Your task to perform on an android device: Go to ESPN.com Image 0: 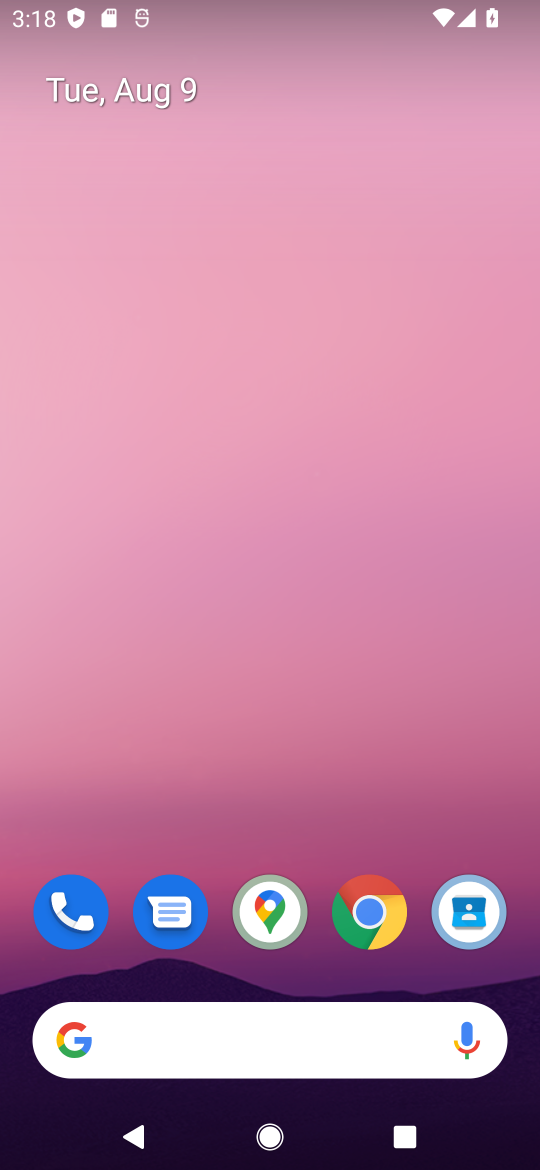
Step 0: click (374, 903)
Your task to perform on an android device: Go to ESPN.com Image 1: 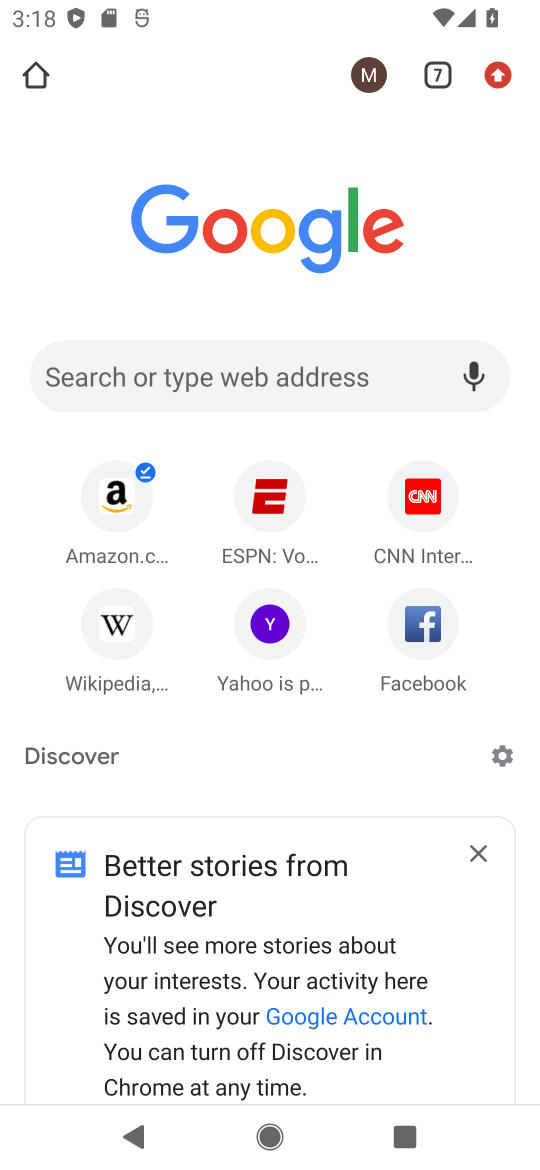
Step 1: click (270, 501)
Your task to perform on an android device: Go to ESPN.com Image 2: 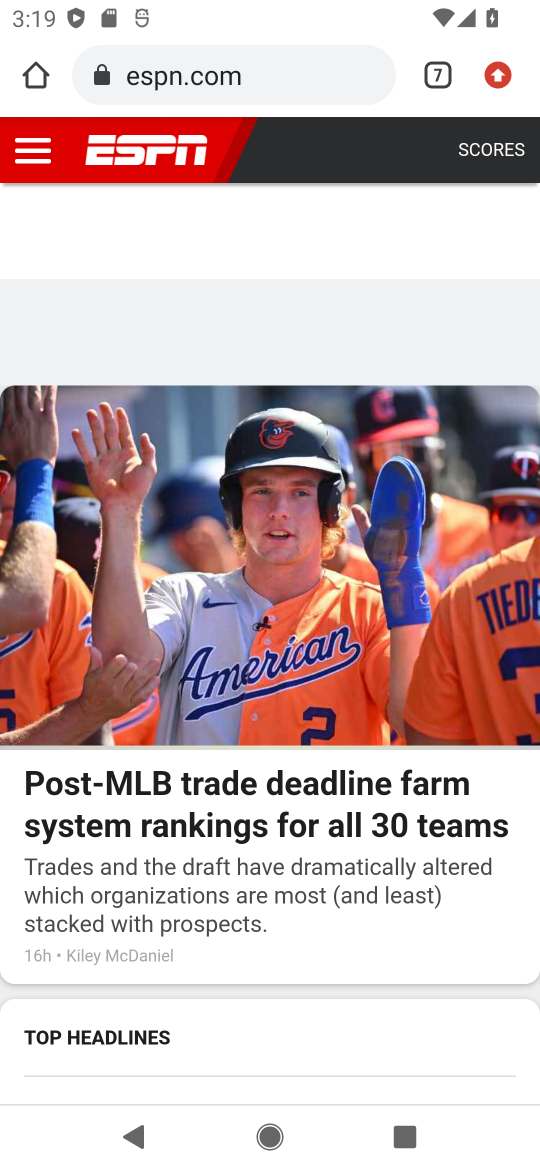
Step 2: task complete